Your task to perform on an android device: change the clock display to analog Image 0: 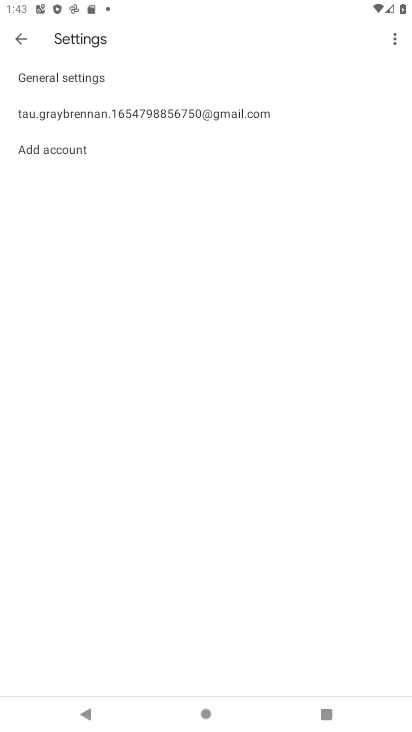
Step 0: press home button
Your task to perform on an android device: change the clock display to analog Image 1: 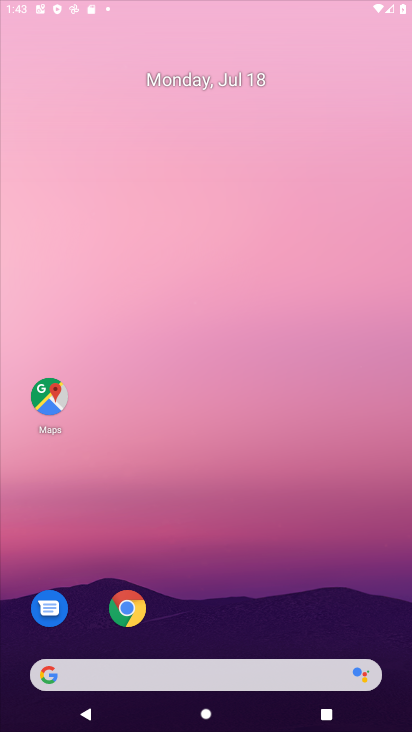
Step 1: drag from (374, 703) to (227, 52)
Your task to perform on an android device: change the clock display to analog Image 2: 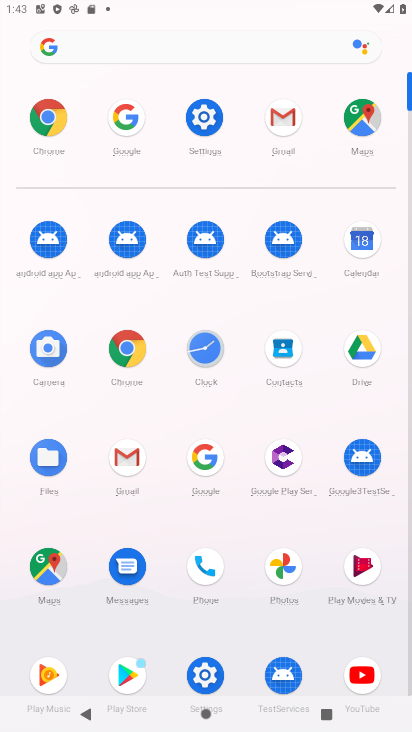
Step 2: click (205, 349)
Your task to perform on an android device: change the clock display to analog Image 3: 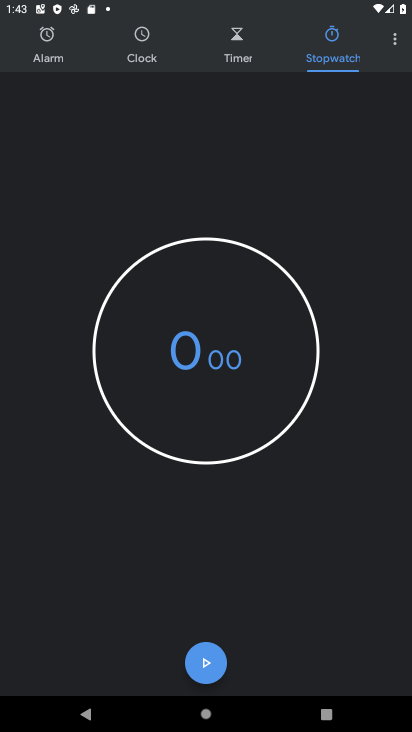
Step 3: click (389, 38)
Your task to perform on an android device: change the clock display to analog Image 4: 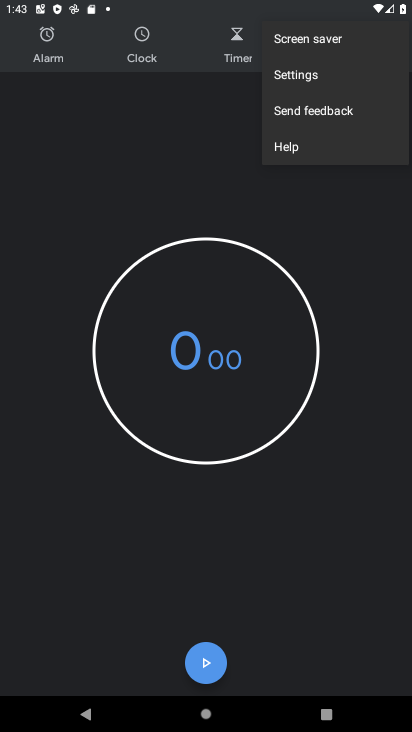
Step 4: click (302, 77)
Your task to perform on an android device: change the clock display to analog Image 5: 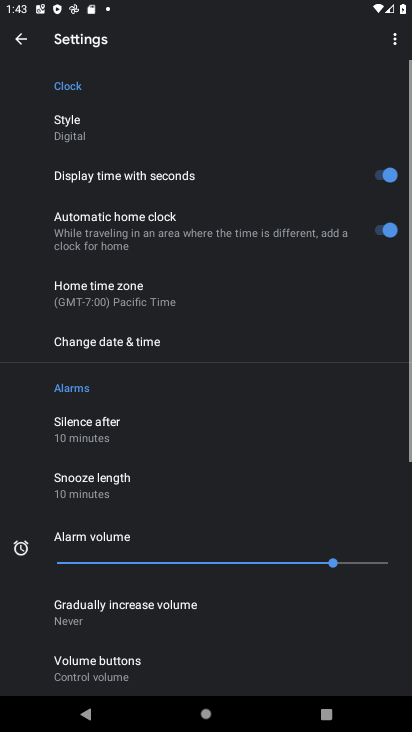
Step 5: click (137, 126)
Your task to perform on an android device: change the clock display to analog Image 6: 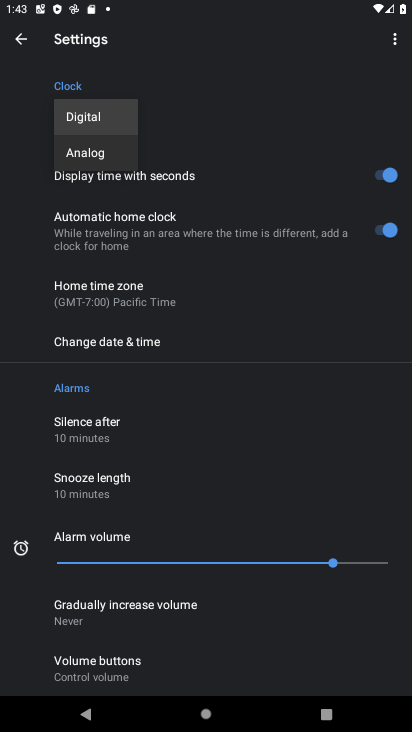
Step 6: click (98, 146)
Your task to perform on an android device: change the clock display to analog Image 7: 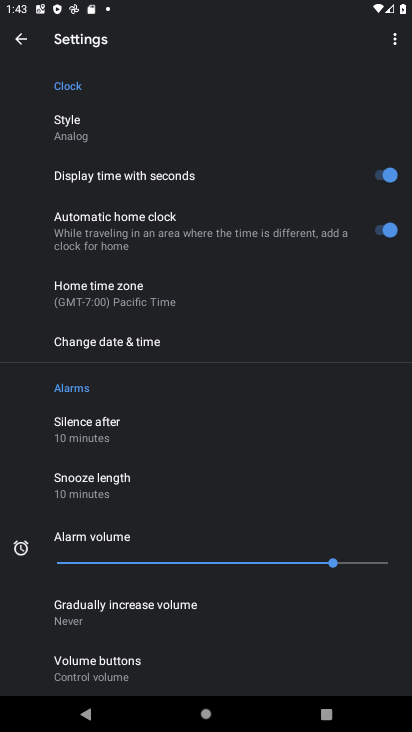
Step 7: task complete